Your task to perform on an android device: Open Youtube and go to "Your channel" Image 0: 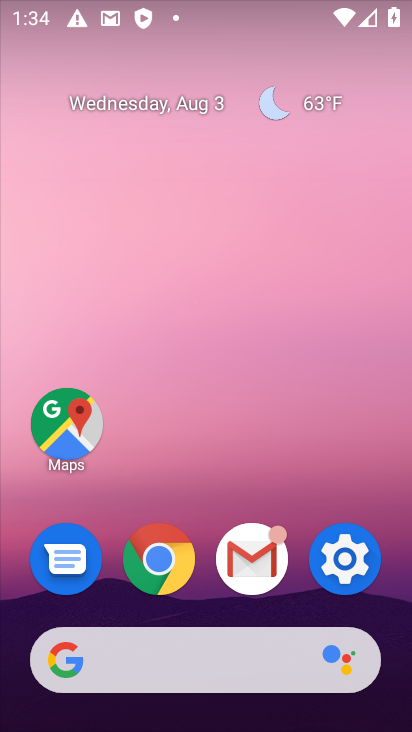
Step 0: drag from (319, 620) to (282, 145)
Your task to perform on an android device: Open Youtube and go to "Your channel" Image 1: 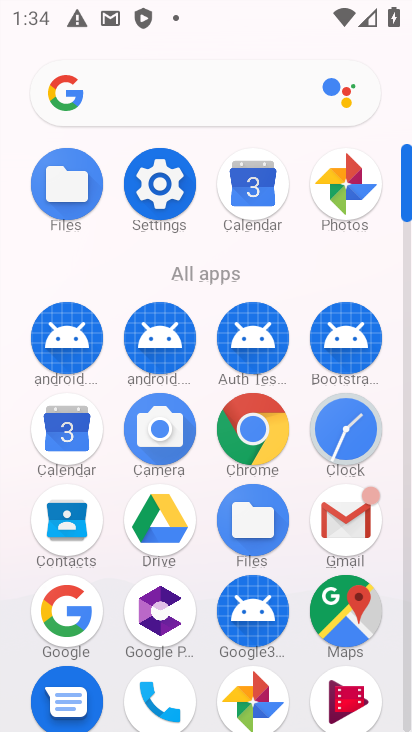
Step 1: drag from (115, 563) to (153, 222)
Your task to perform on an android device: Open Youtube and go to "Your channel" Image 2: 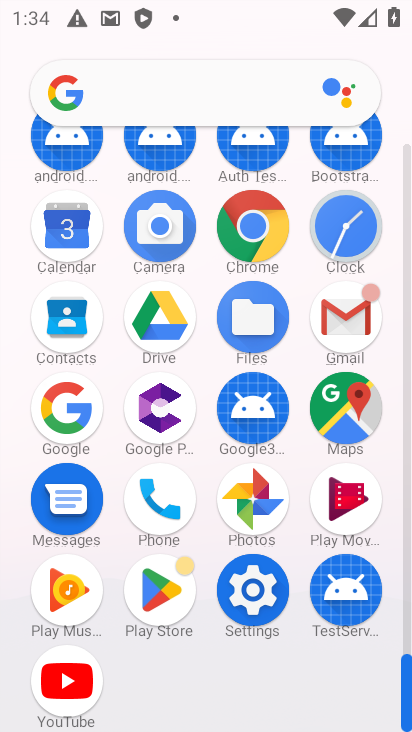
Step 2: click (90, 675)
Your task to perform on an android device: Open Youtube and go to "Your channel" Image 3: 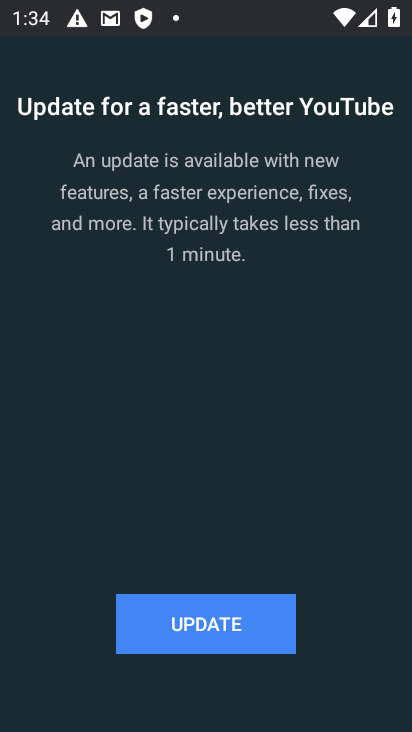
Step 3: click (177, 678)
Your task to perform on an android device: Open Youtube and go to "Your channel" Image 4: 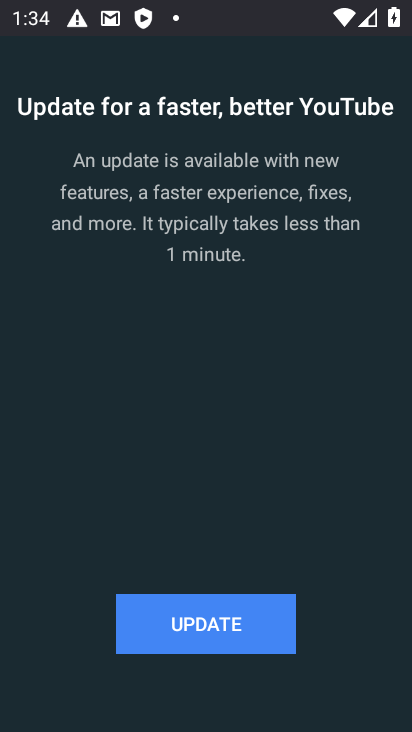
Step 4: click (184, 626)
Your task to perform on an android device: Open Youtube and go to "Your channel" Image 5: 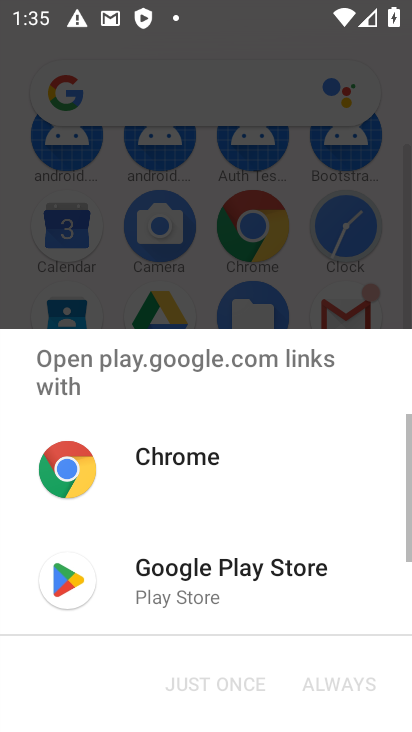
Step 5: click (212, 593)
Your task to perform on an android device: Open Youtube and go to "Your channel" Image 6: 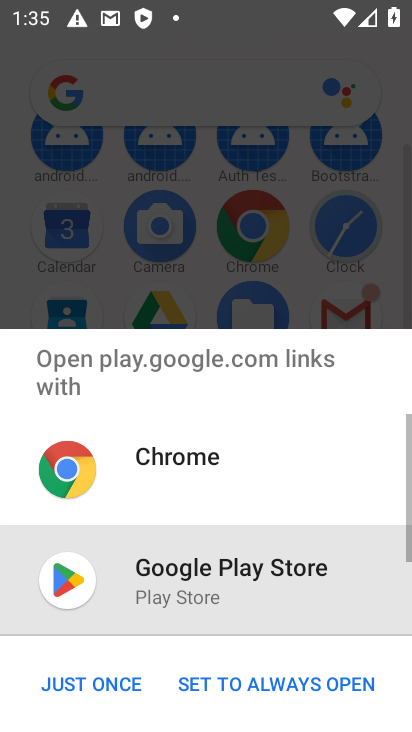
Step 6: click (125, 668)
Your task to perform on an android device: Open Youtube and go to "Your channel" Image 7: 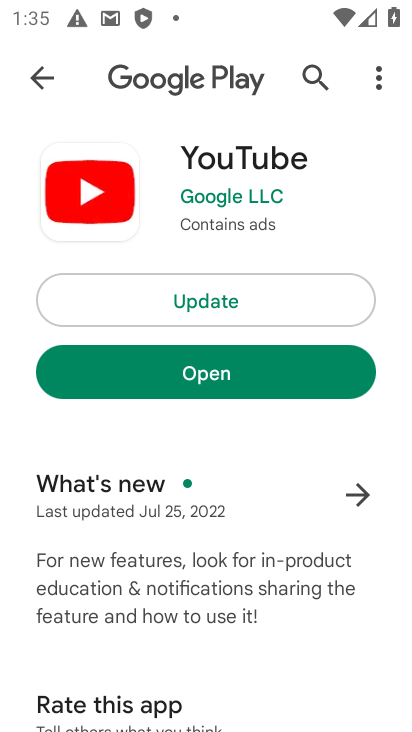
Step 7: drag from (207, 364) to (379, 223)
Your task to perform on an android device: Open Youtube and go to "Your channel" Image 8: 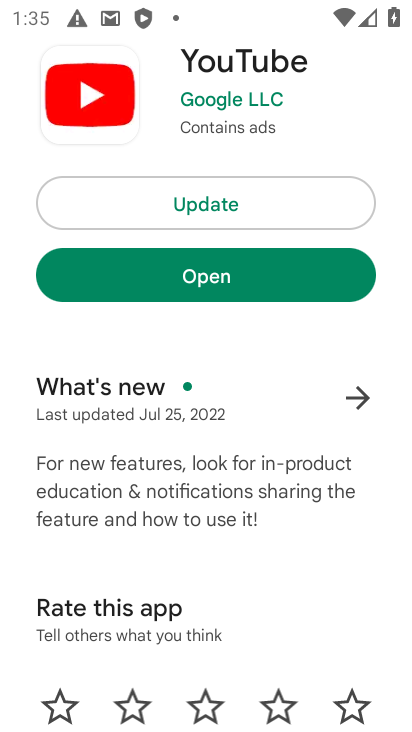
Step 8: click (219, 199)
Your task to perform on an android device: Open Youtube and go to "Your channel" Image 9: 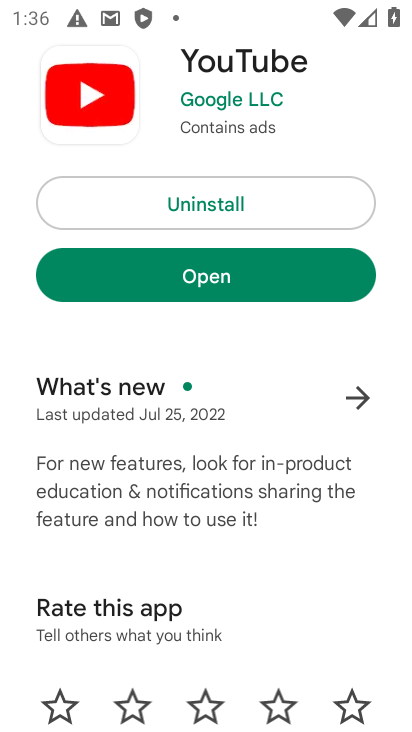
Step 9: click (252, 274)
Your task to perform on an android device: Open Youtube and go to "Your channel" Image 10: 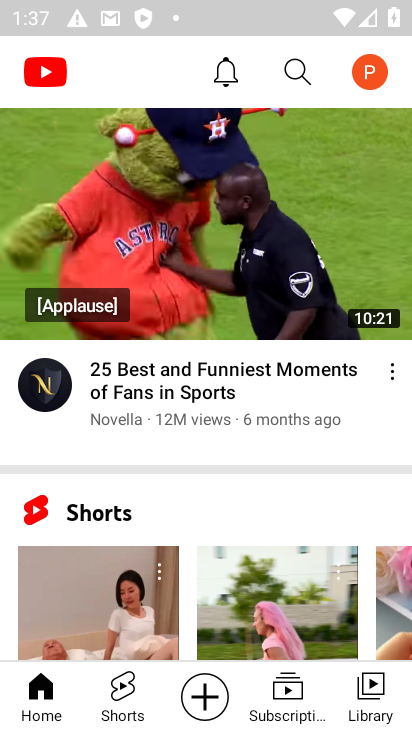
Step 10: click (367, 67)
Your task to perform on an android device: Open Youtube and go to "Your channel" Image 11: 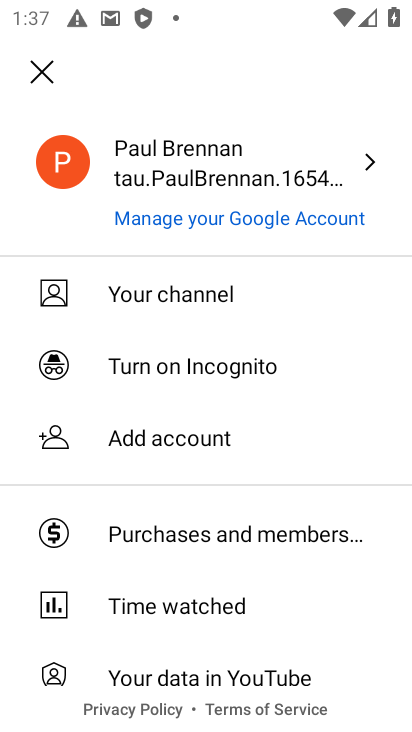
Step 11: click (172, 315)
Your task to perform on an android device: Open Youtube and go to "Your channel" Image 12: 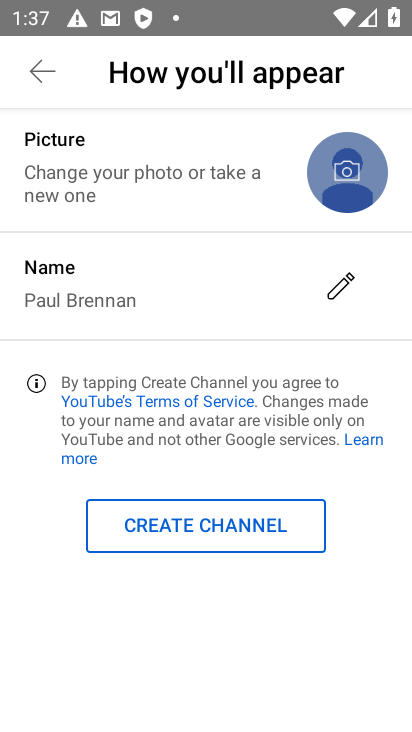
Step 12: task complete